Your task to perform on an android device: Check out the best rated electric trimmers on Lowe's Image 0: 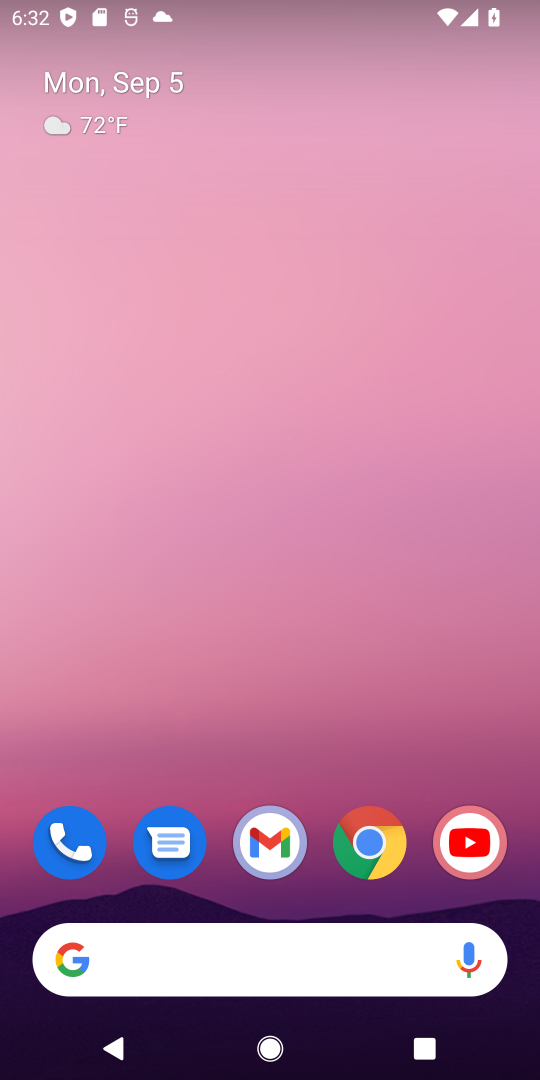
Step 0: click (367, 845)
Your task to perform on an android device: Check out the best rated electric trimmers on Lowe's Image 1: 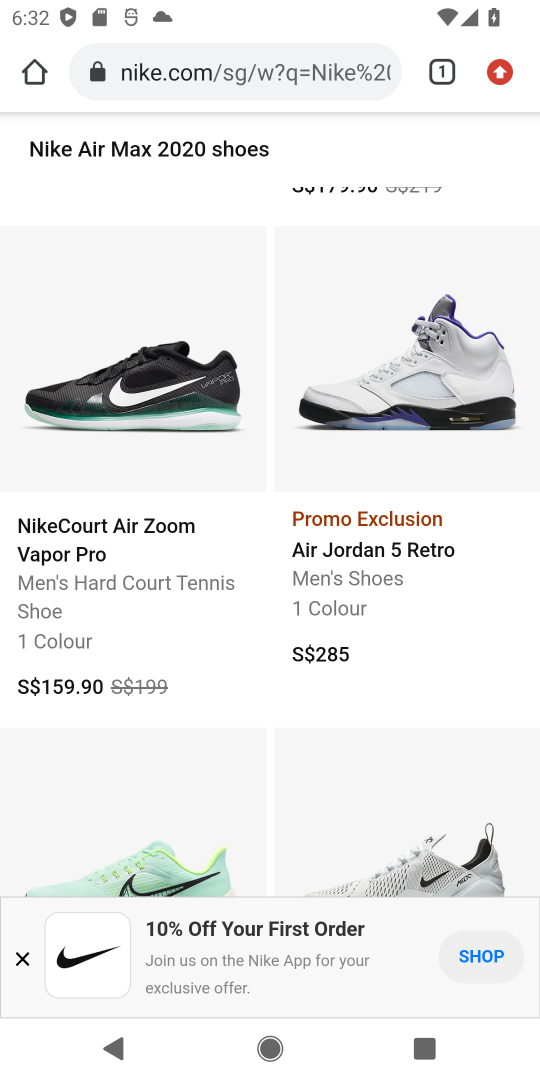
Step 1: click (304, 76)
Your task to perform on an android device: Check out the best rated electric trimmers on Lowe's Image 2: 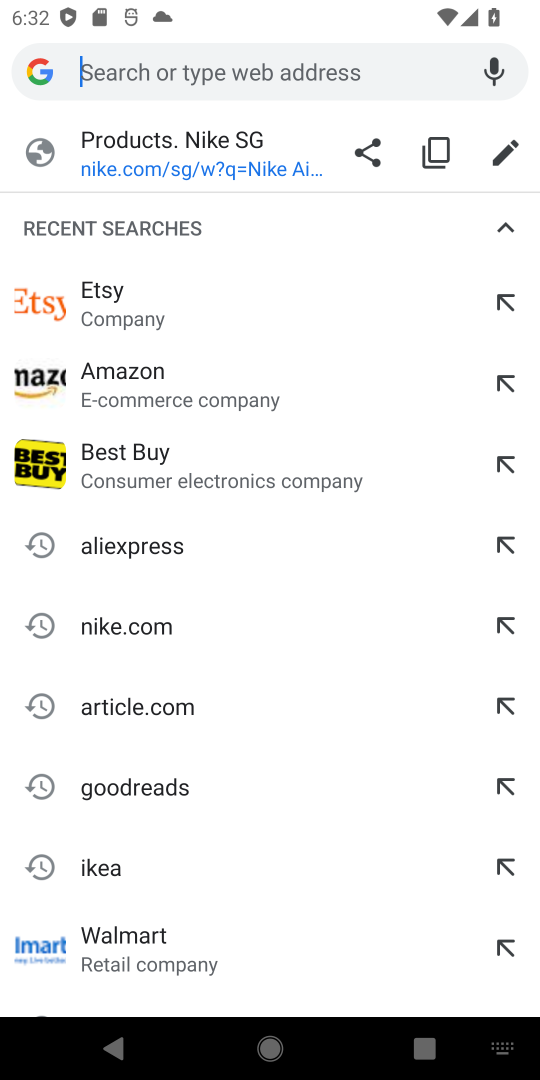
Step 2: click (237, 85)
Your task to perform on an android device: Check out the best rated electric trimmers on Lowe's Image 3: 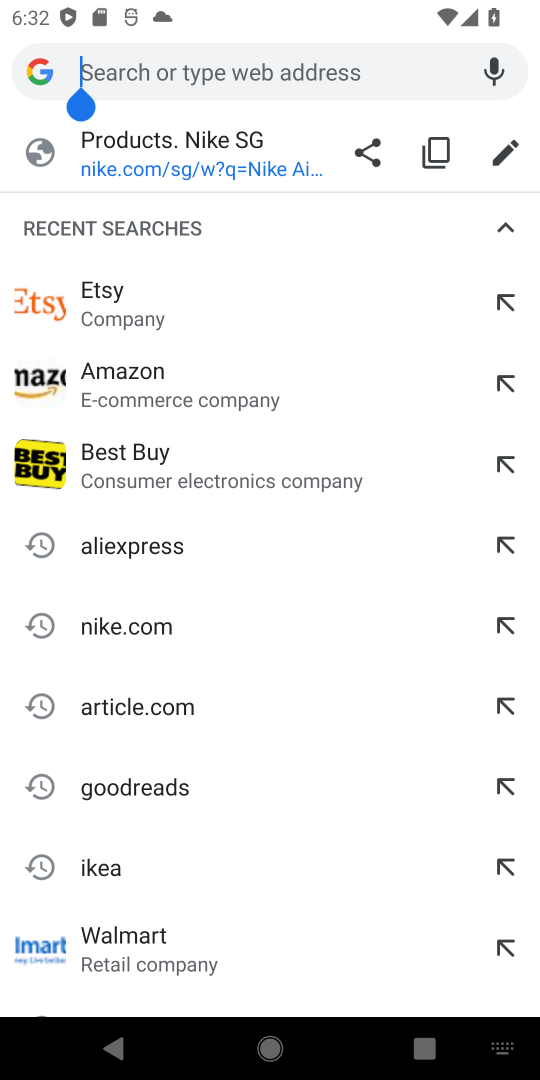
Step 3: type "Lowe's"
Your task to perform on an android device: Check out the best rated electric trimmers on Lowe's Image 4: 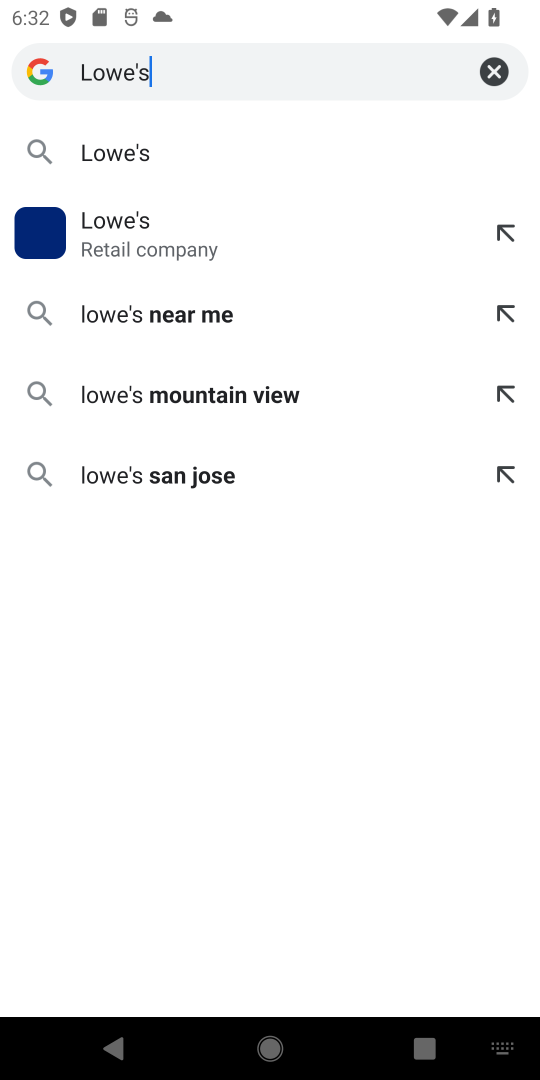
Step 4: click (134, 157)
Your task to perform on an android device: Check out the best rated electric trimmers on Lowe's Image 5: 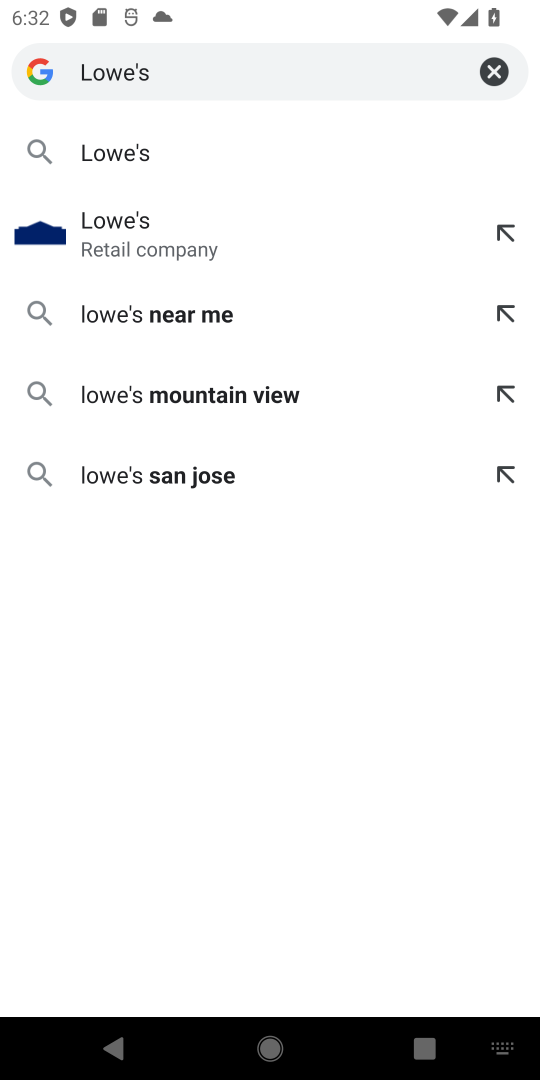
Step 5: click (94, 251)
Your task to perform on an android device: Check out the best rated electric trimmers on Lowe's Image 6: 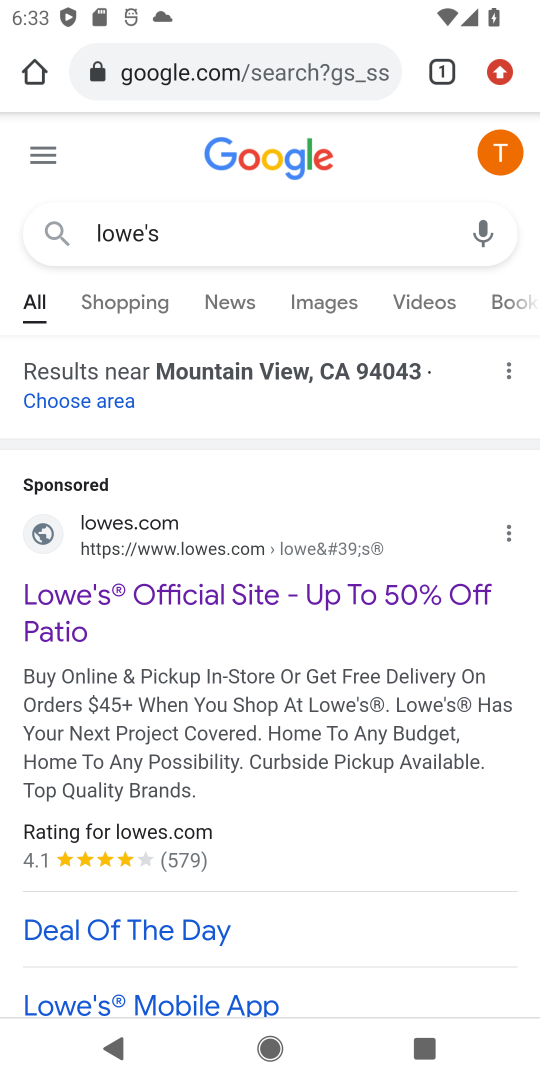
Step 6: drag from (290, 857) to (301, 349)
Your task to perform on an android device: Check out the best rated electric trimmers on Lowe's Image 7: 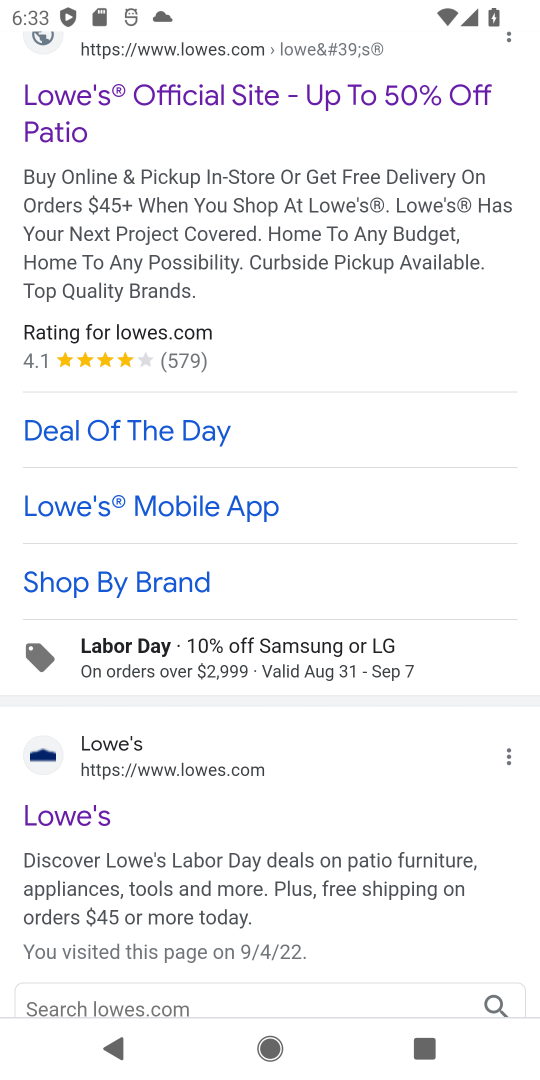
Step 7: click (91, 834)
Your task to perform on an android device: Check out the best rated electric trimmers on Lowe's Image 8: 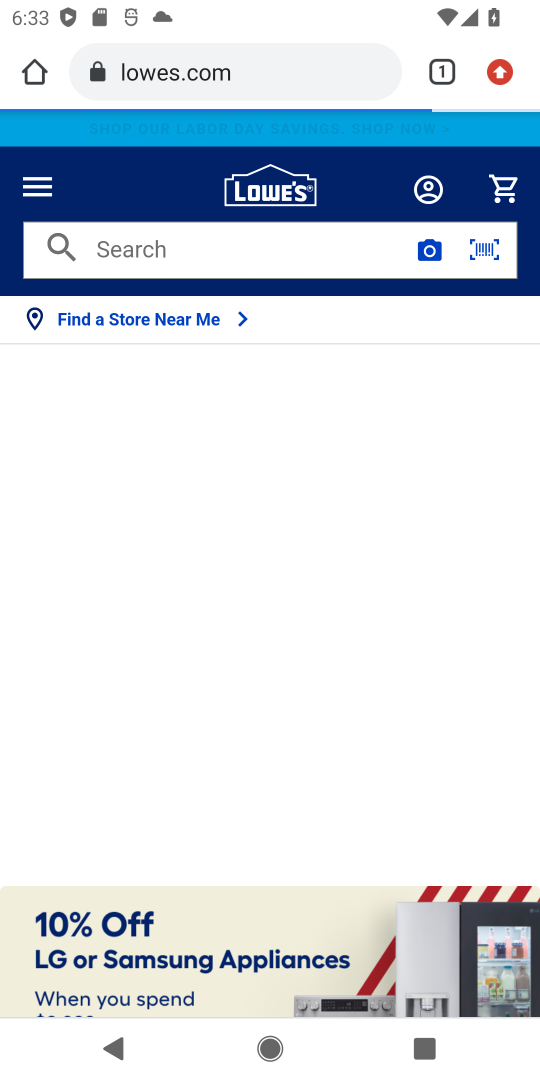
Step 8: click (196, 252)
Your task to perform on an android device: Check out the best rated electric trimmers on Lowe's Image 9: 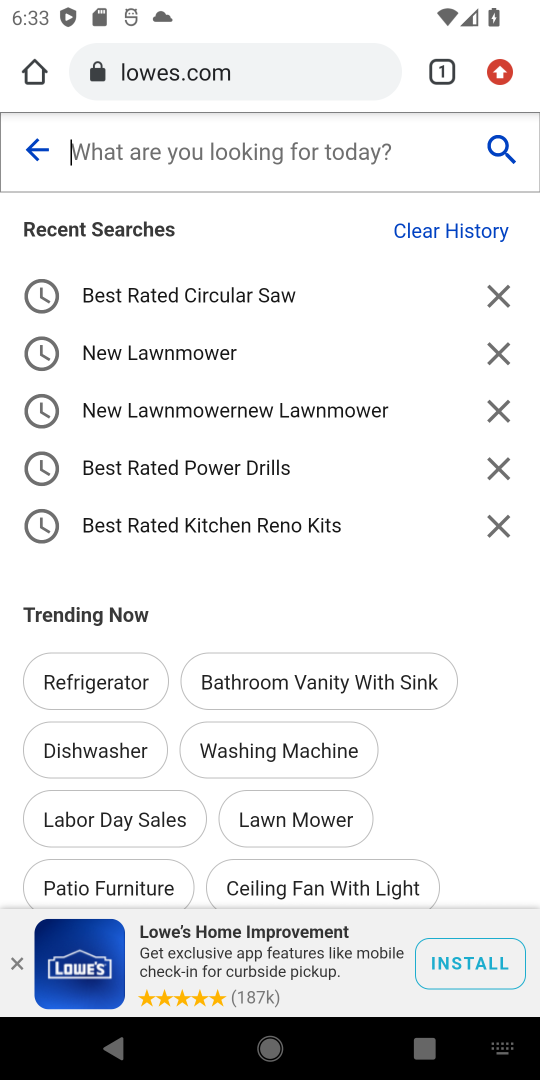
Step 9: type "best rated electric trimmers"
Your task to perform on an android device: Check out the best rated electric trimmers on Lowe's Image 10: 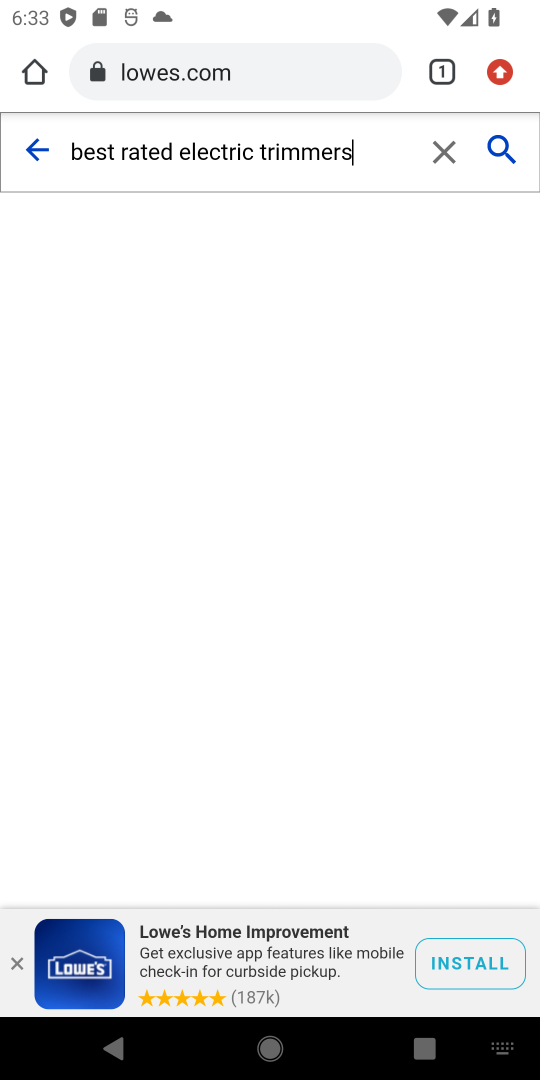
Step 10: click (491, 147)
Your task to perform on an android device: Check out the best rated electric trimmers on Lowe's Image 11: 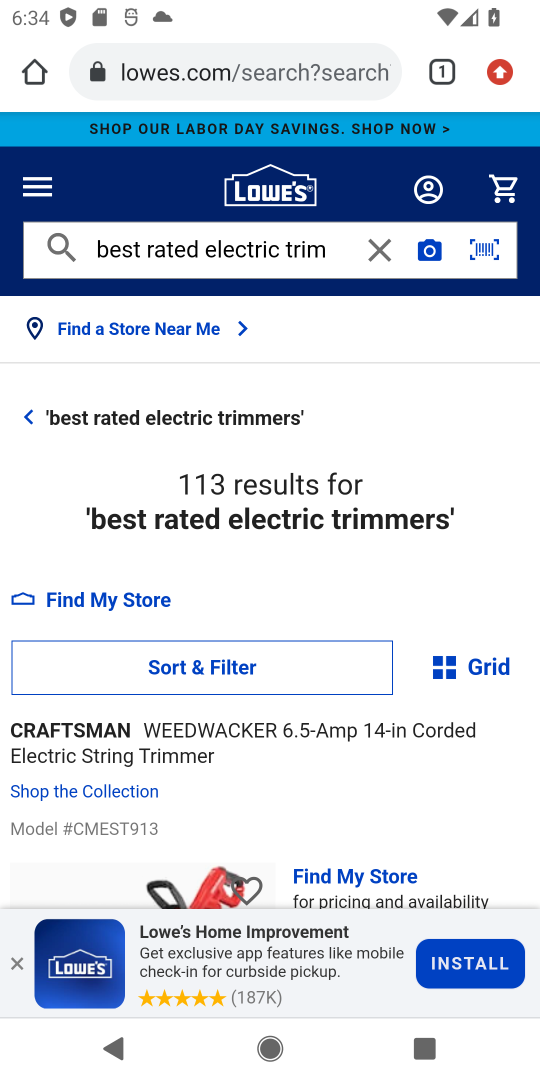
Step 11: task complete